Your task to perform on an android device: read, delete, or share a saved page in the chrome app Image 0: 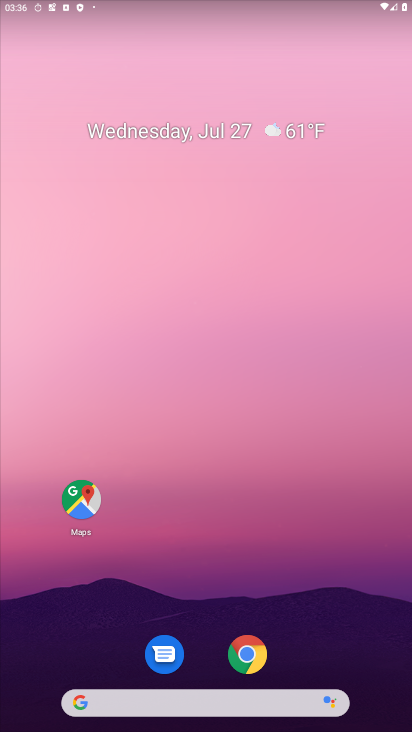
Step 0: drag from (319, 704) to (332, 37)
Your task to perform on an android device: read, delete, or share a saved page in the chrome app Image 1: 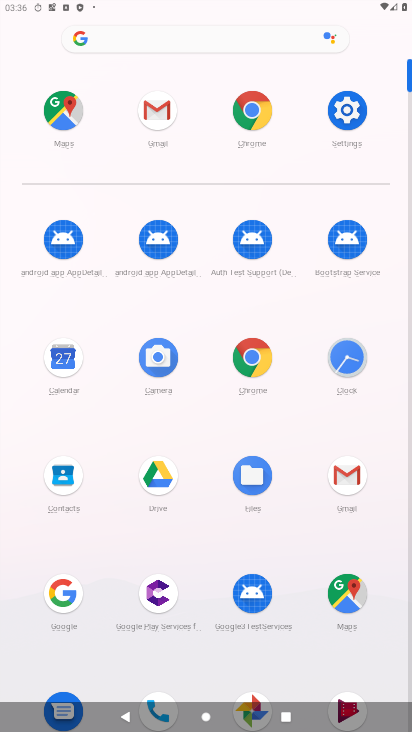
Step 1: click (239, 349)
Your task to perform on an android device: read, delete, or share a saved page in the chrome app Image 2: 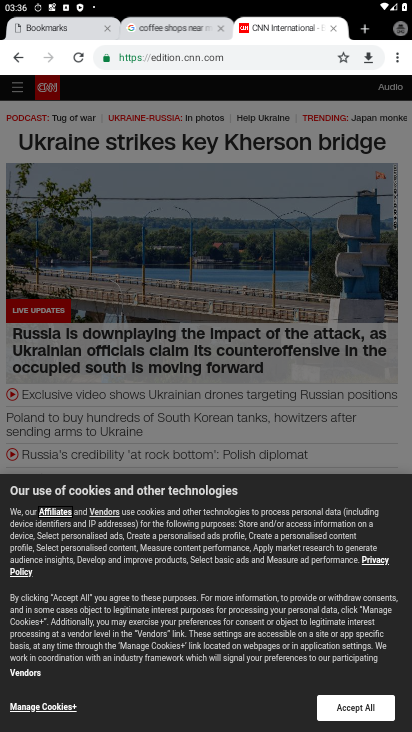
Step 2: task complete